Your task to perform on an android device: set default search engine in the chrome app Image 0: 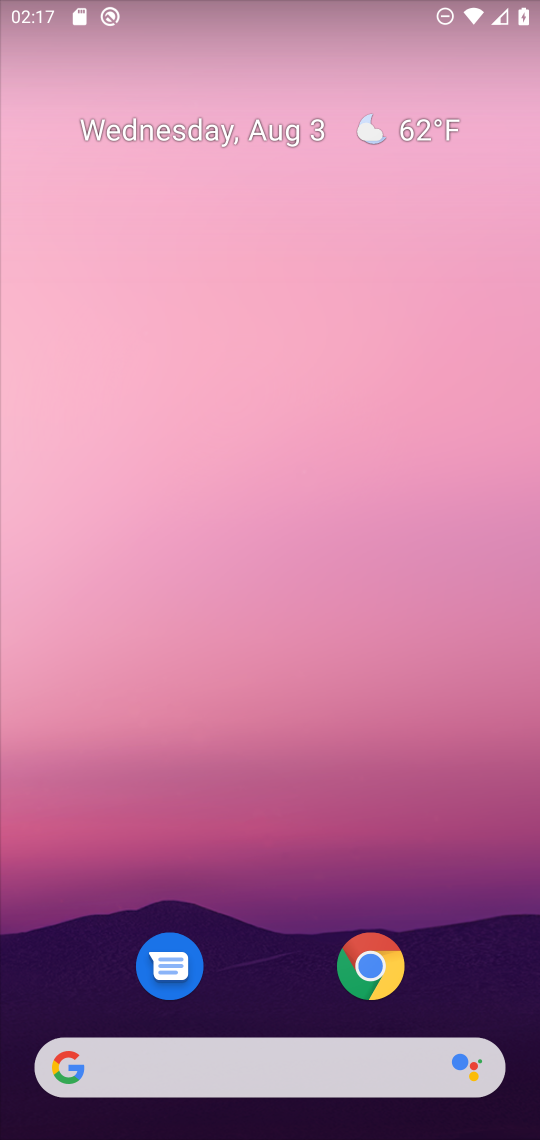
Step 0: click (394, 965)
Your task to perform on an android device: set default search engine in the chrome app Image 1: 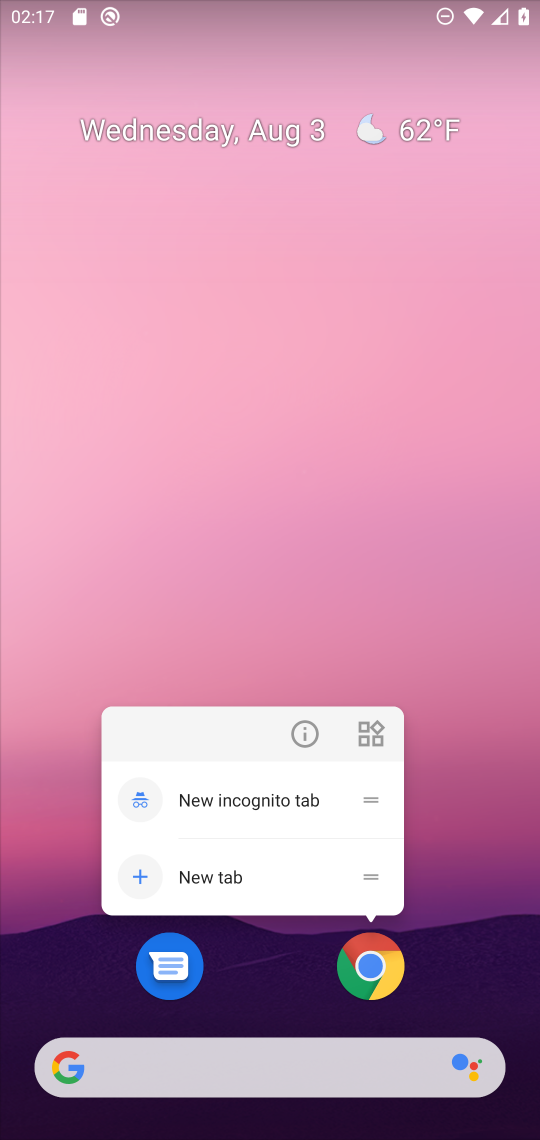
Step 1: click (396, 966)
Your task to perform on an android device: set default search engine in the chrome app Image 2: 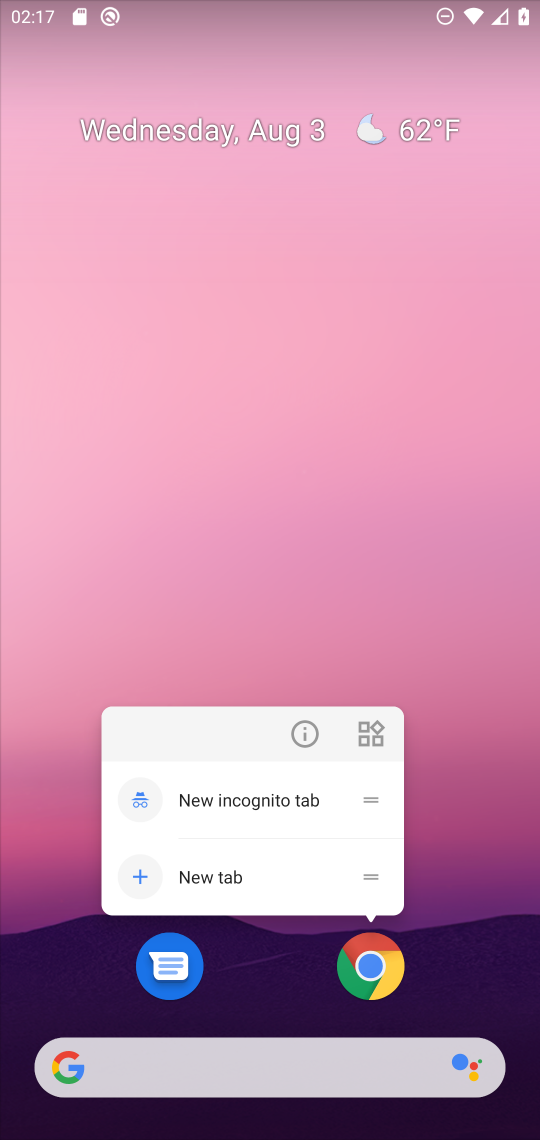
Step 2: click (396, 966)
Your task to perform on an android device: set default search engine in the chrome app Image 3: 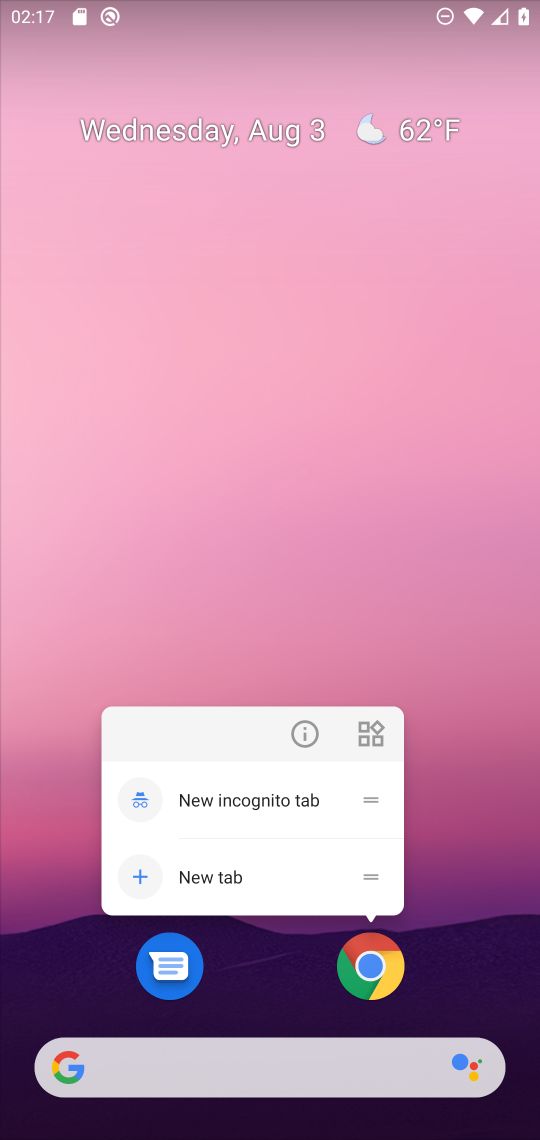
Step 3: click (384, 989)
Your task to perform on an android device: set default search engine in the chrome app Image 4: 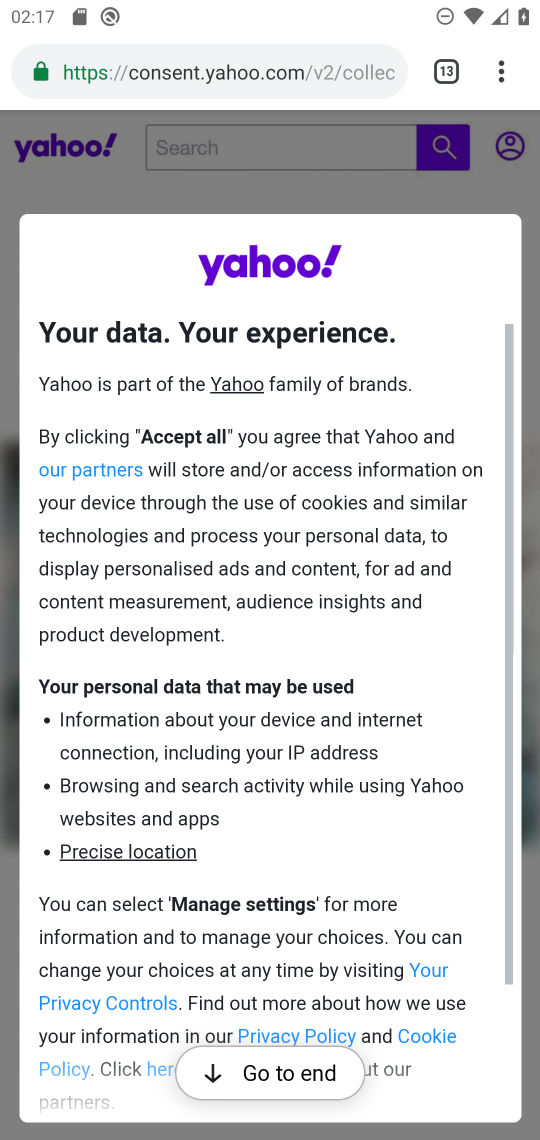
Step 4: click (499, 68)
Your task to perform on an android device: set default search engine in the chrome app Image 5: 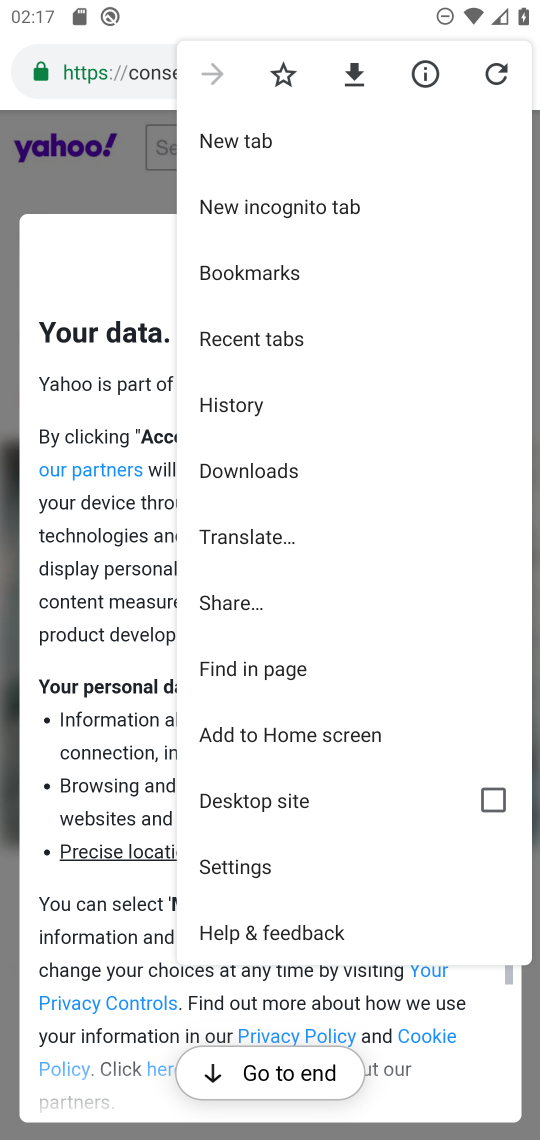
Step 5: click (266, 862)
Your task to perform on an android device: set default search engine in the chrome app Image 6: 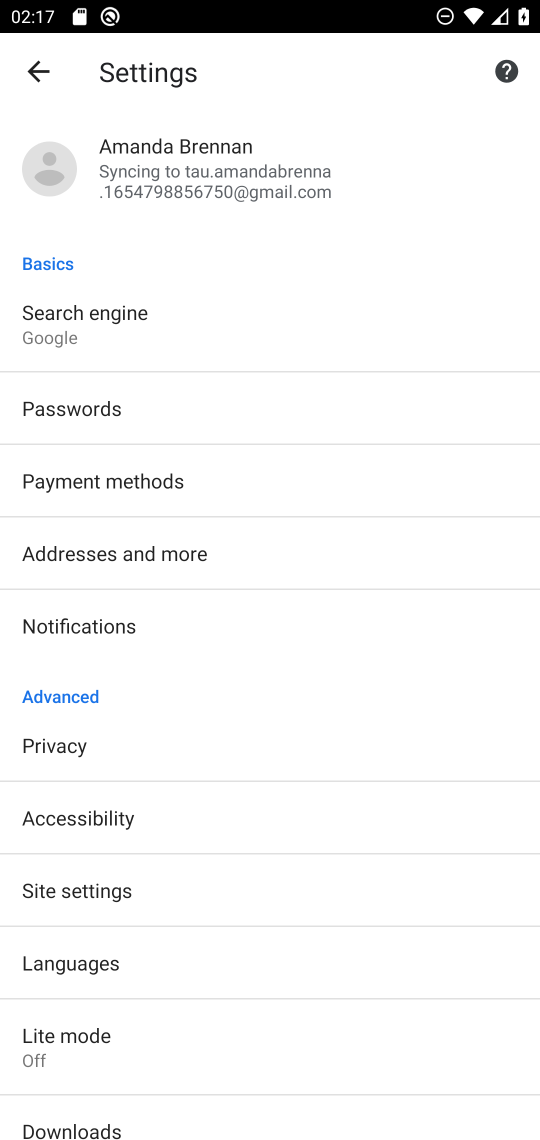
Step 6: click (178, 333)
Your task to perform on an android device: set default search engine in the chrome app Image 7: 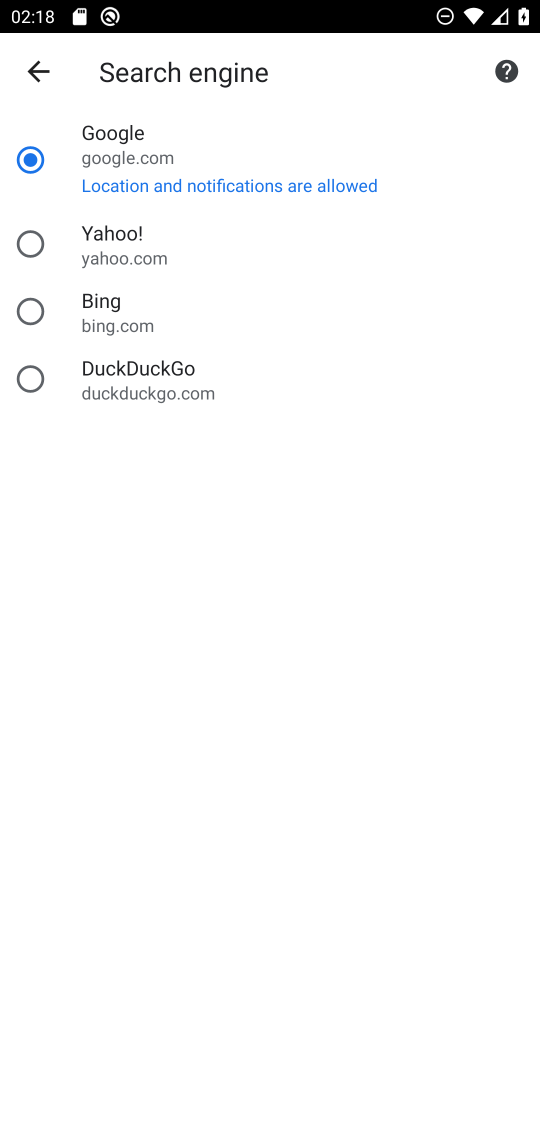
Step 7: task complete